Your task to perform on an android device: turn on sleep mode Image 0: 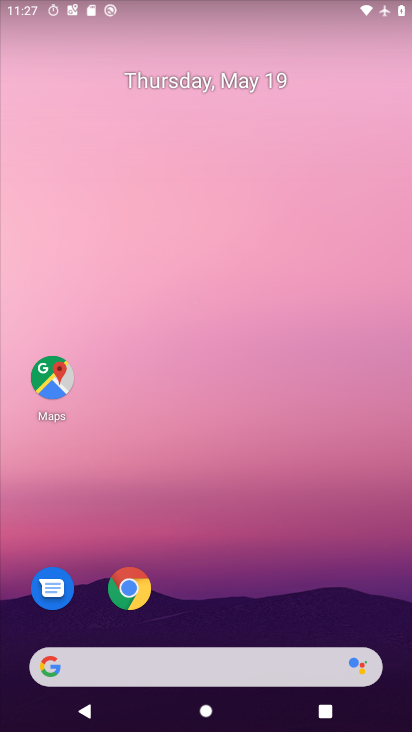
Step 0: drag from (169, 676) to (302, 164)
Your task to perform on an android device: turn on sleep mode Image 1: 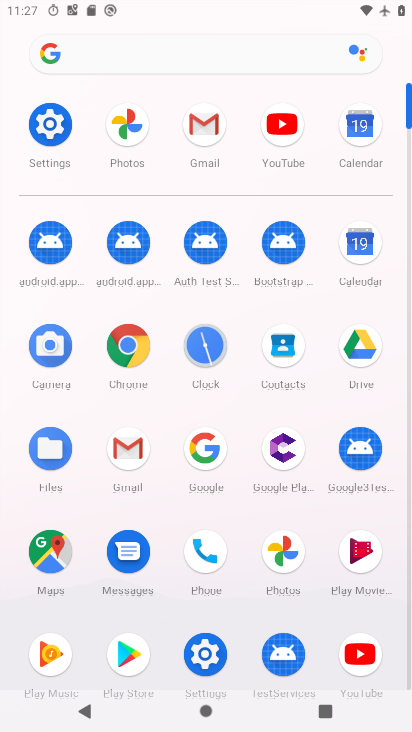
Step 1: click (48, 131)
Your task to perform on an android device: turn on sleep mode Image 2: 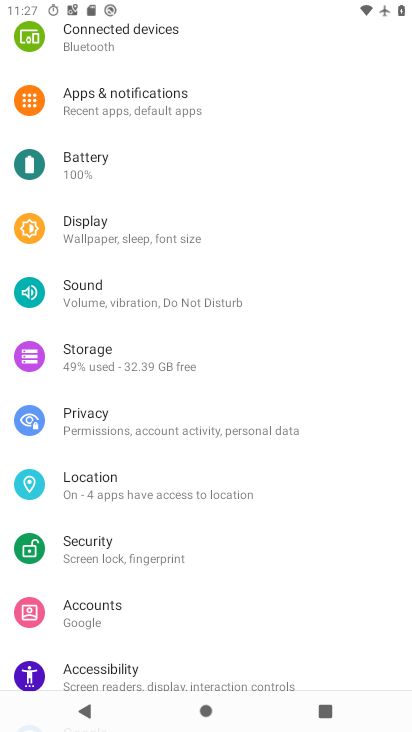
Step 2: click (143, 233)
Your task to perform on an android device: turn on sleep mode Image 3: 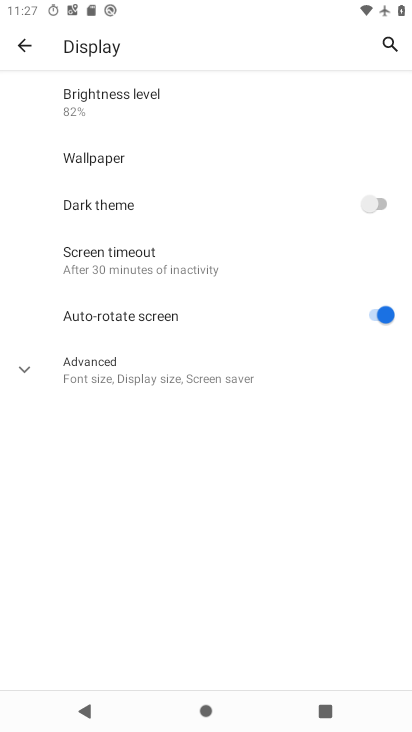
Step 3: click (30, 364)
Your task to perform on an android device: turn on sleep mode Image 4: 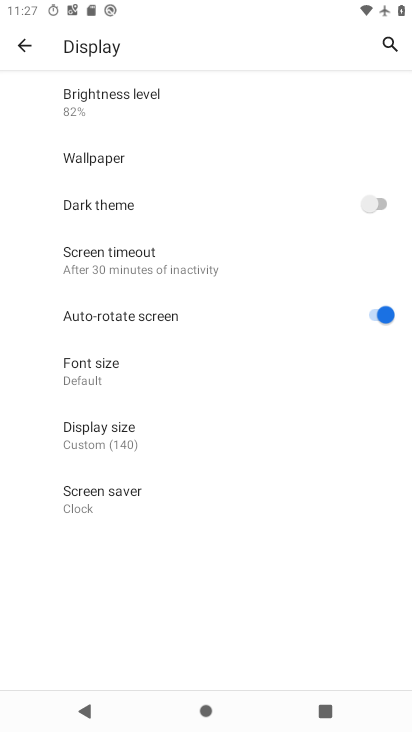
Step 4: task complete